Your task to perform on an android device: toggle sleep mode Image 0: 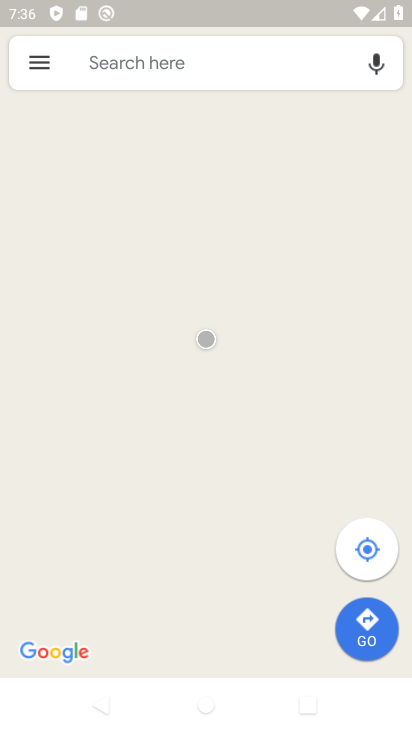
Step 0: press home button
Your task to perform on an android device: toggle sleep mode Image 1: 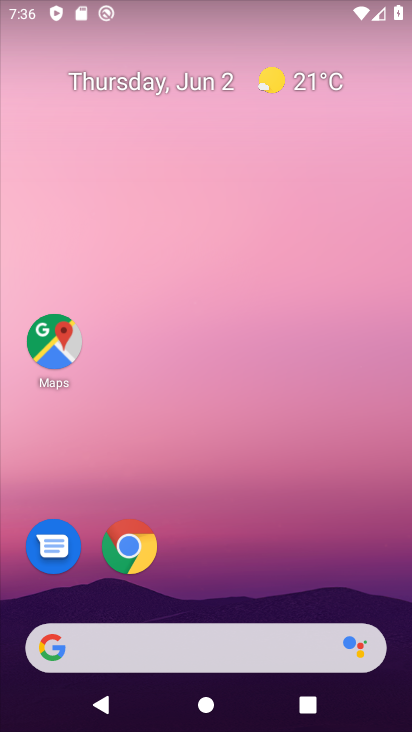
Step 1: drag from (320, 530) to (336, 63)
Your task to perform on an android device: toggle sleep mode Image 2: 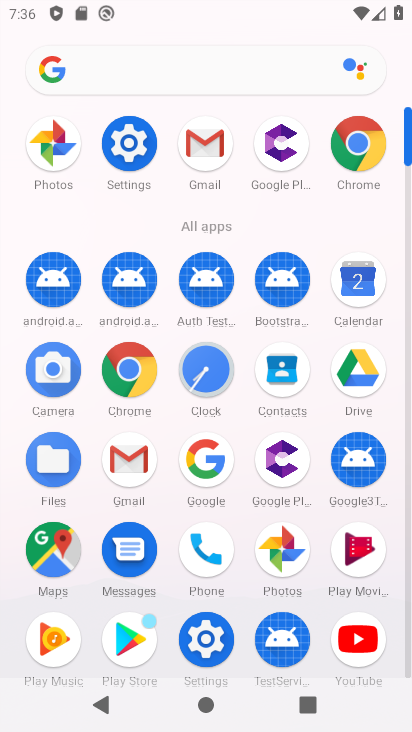
Step 2: click (121, 148)
Your task to perform on an android device: toggle sleep mode Image 3: 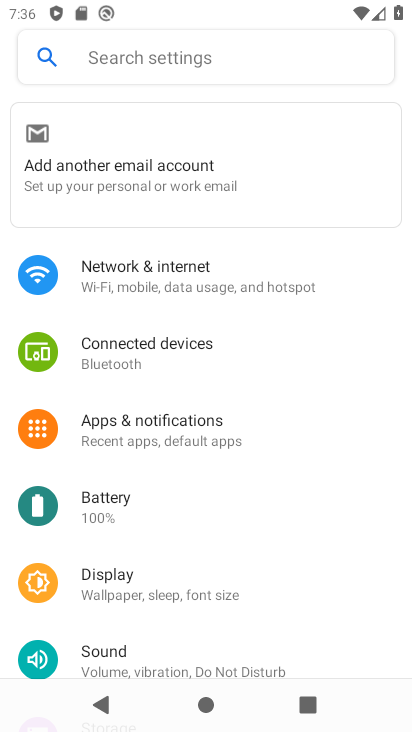
Step 3: click (229, 54)
Your task to perform on an android device: toggle sleep mode Image 4: 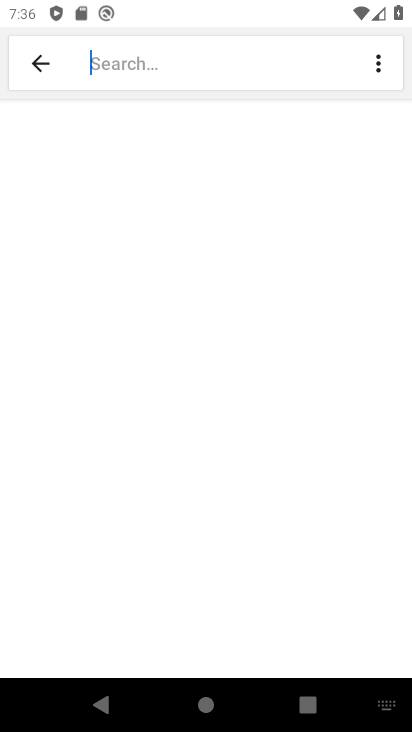
Step 4: type "sleep mode"
Your task to perform on an android device: toggle sleep mode Image 5: 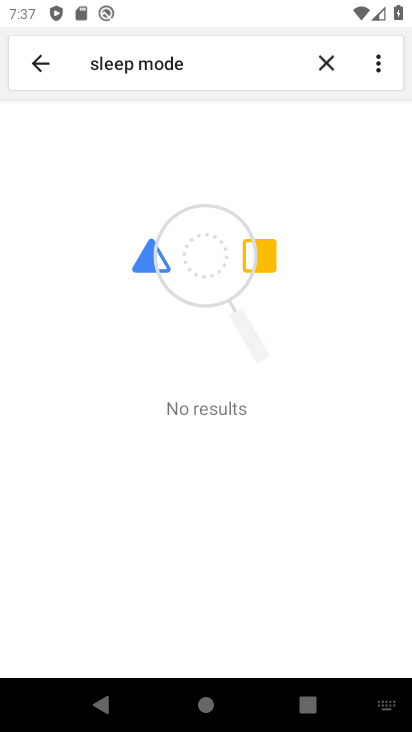
Step 5: task complete